Your task to perform on an android device: create a new album in the google photos Image 0: 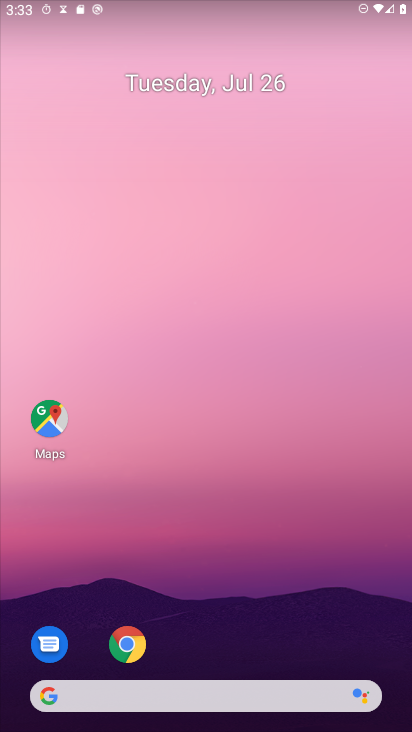
Step 0: press home button
Your task to perform on an android device: create a new album in the google photos Image 1: 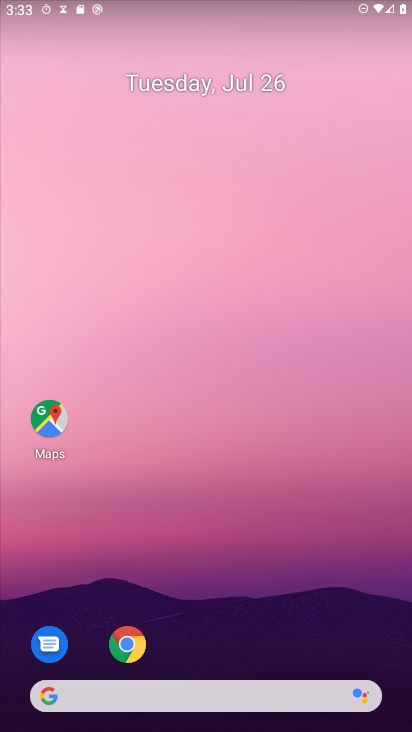
Step 1: drag from (247, 642) to (233, 95)
Your task to perform on an android device: create a new album in the google photos Image 2: 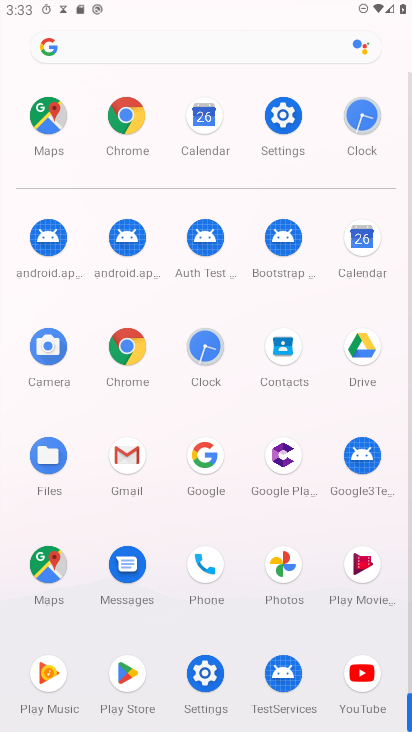
Step 2: click (281, 559)
Your task to perform on an android device: create a new album in the google photos Image 3: 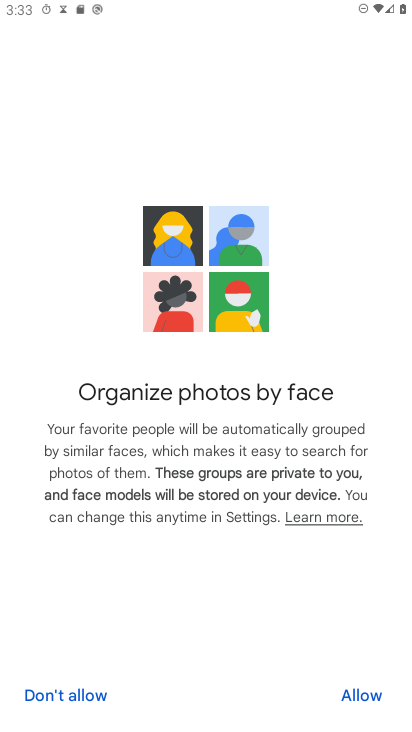
Step 3: click (372, 701)
Your task to perform on an android device: create a new album in the google photos Image 4: 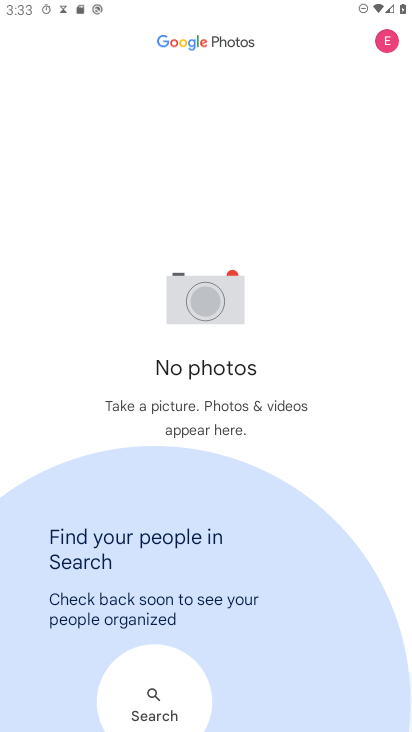
Step 4: click (343, 340)
Your task to perform on an android device: create a new album in the google photos Image 5: 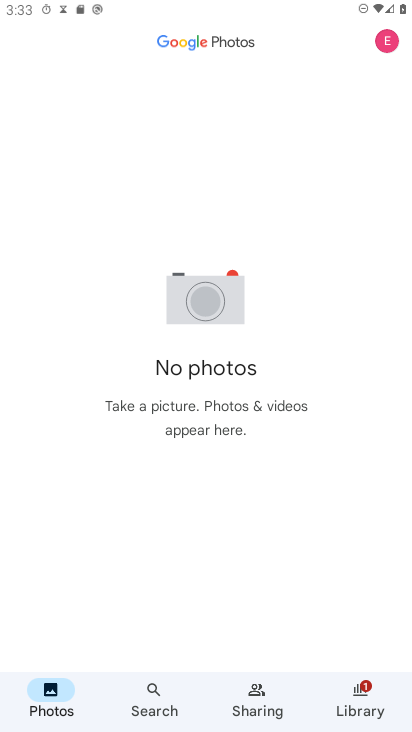
Step 5: click (46, 699)
Your task to perform on an android device: create a new album in the google photos Image 6: 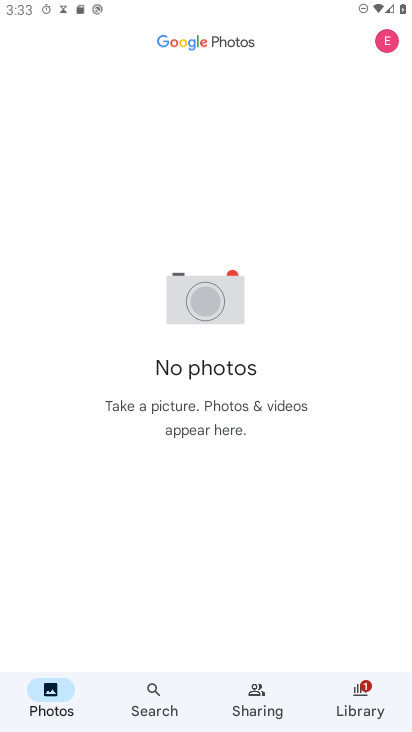
Step 6: task complete